Your task to perform on an android device: turn off picture-in-picture Image 0: 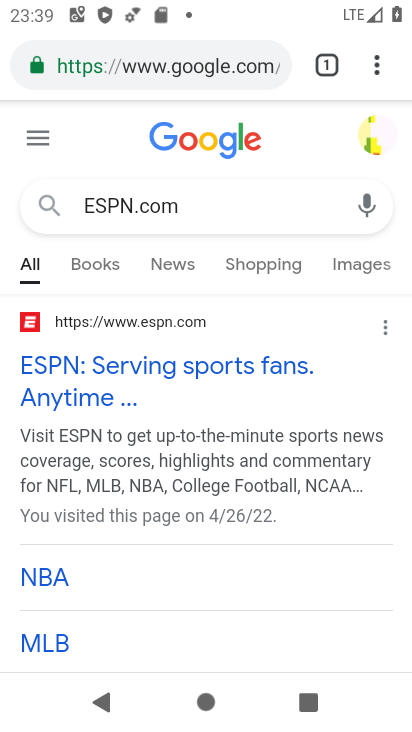
Step 0: press home button
Your task to perform on an android device: turn off picture-in-picture Image 1: 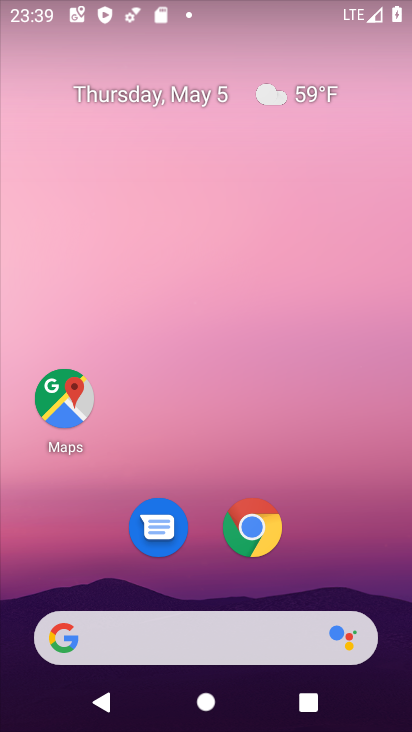
Step 1: click (256, 528)
Your task to perform on an android device: turn off picture-in-picture Image 2: 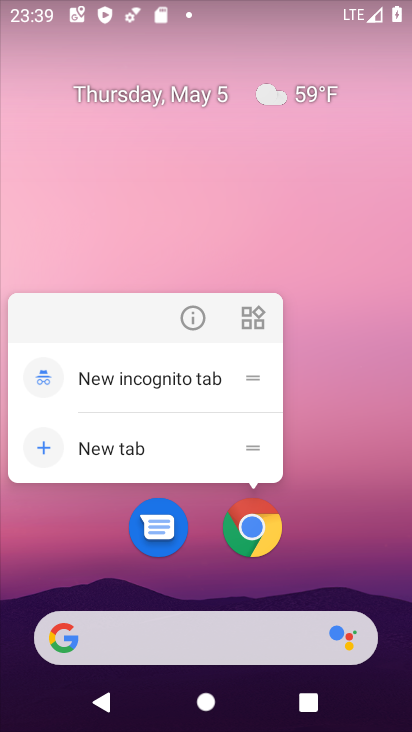
Step 2: click (188, 325)
Your task to perform on an android device: turn off picture-in-picture Image 3: 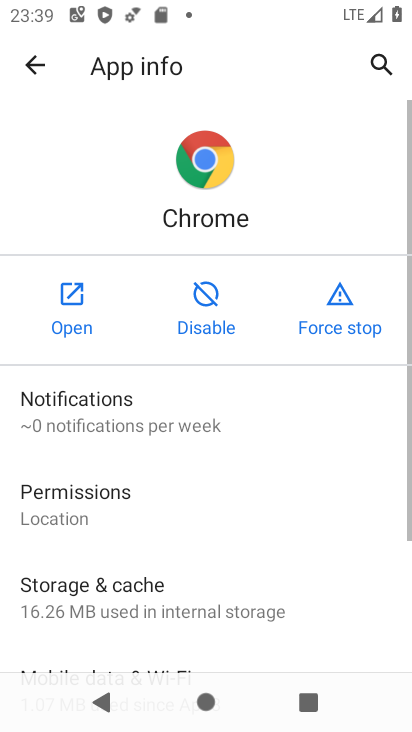
Step 3: drag from (215, 551) to (279, 156)
Your task to perform on an android device: turn off picture-in-picture Image 4: 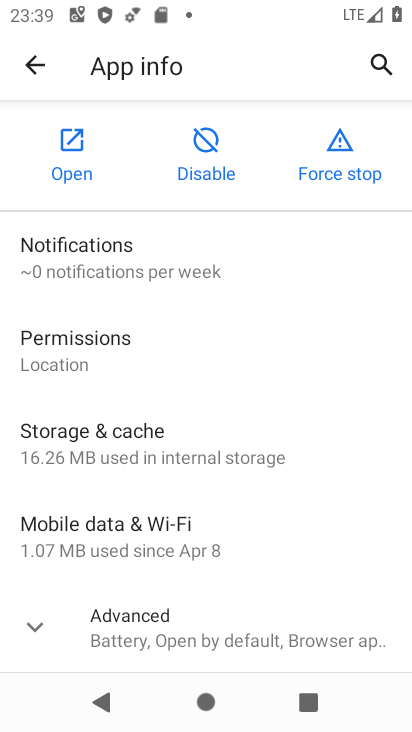
Step 4: click (160, 623)
Your task to perform on an android device: turn off picture-in-picture Image 5: 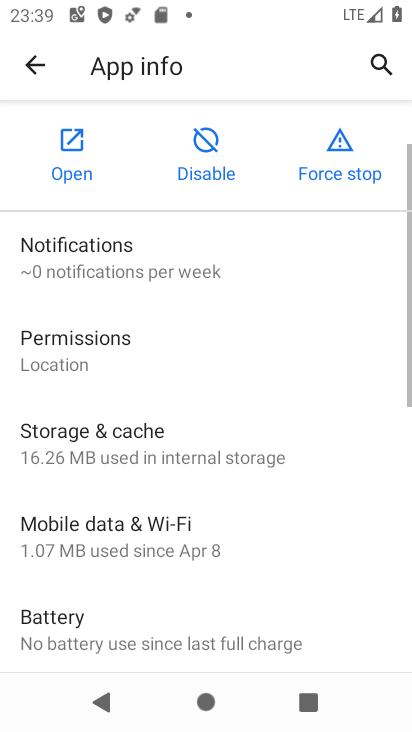
Step 5: drag from (212, 595) to (250, 258)
Your task to perform on an android device: turn off picture-in-picture Image 6: 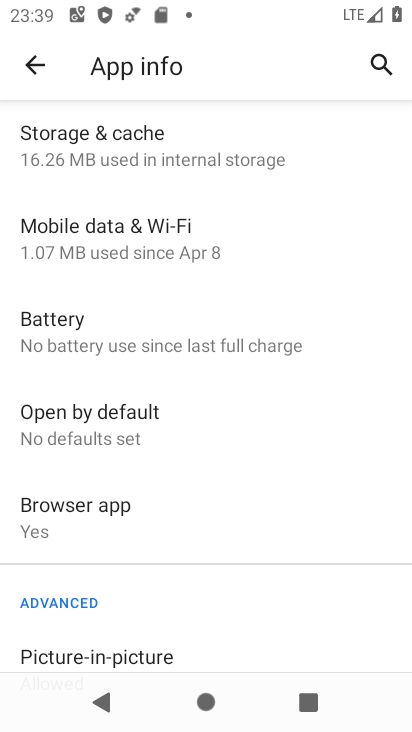
Step 6: drag from (159, 585) to (220, 297)
Your task to perform on an android device: turn off picture-in-picture Image 7: 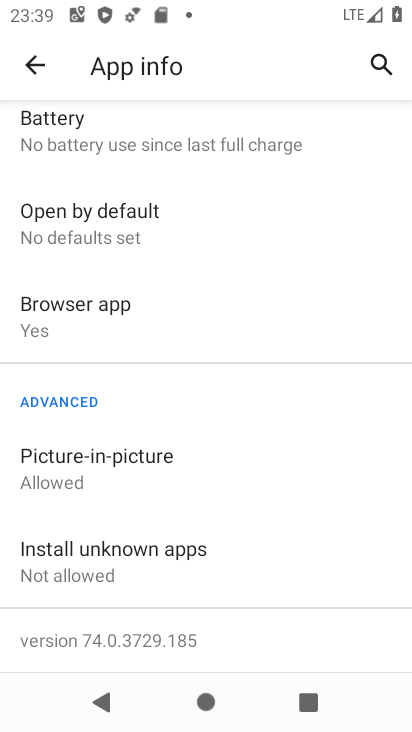
Step 7: click (148, 463)
Your task to perform on an android device: turn off picture-in-picture Image 8: 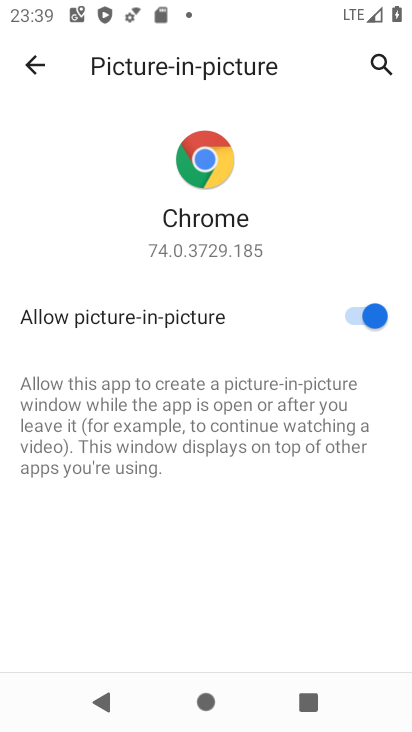
Step 8: click (334, 319)
Your task to perform on an android device: turn off picture-in-picture Image 9: 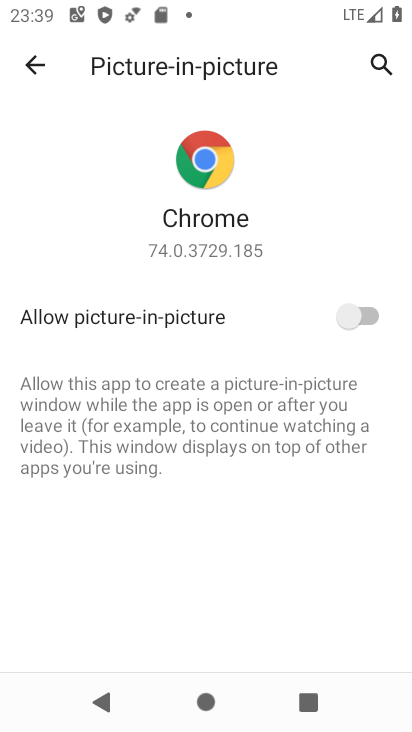
Step 9: task complete